Your task to perform on an android device: check out phone information Image 0: 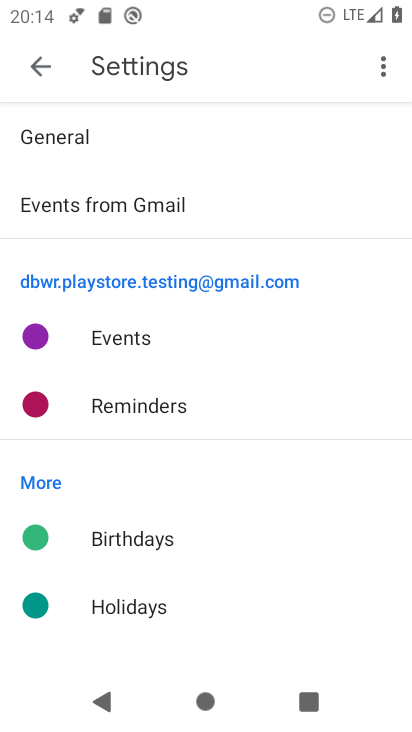
Step 0: press home button
Your task to perform on an android device: check out phone information Image 1: 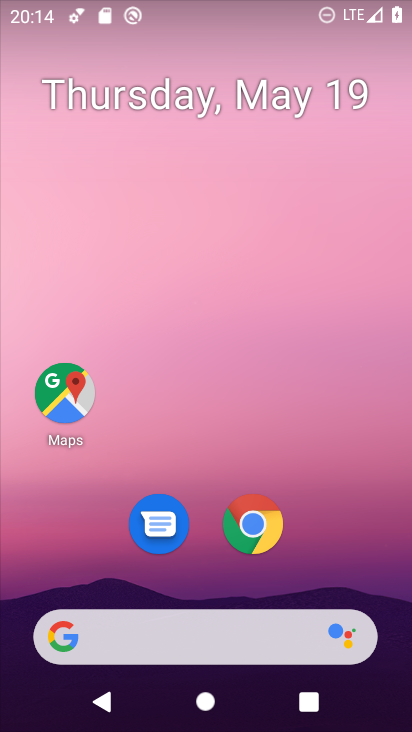
Step 1: drag from (213, 482) to (242, 12)
Your task to perform on an android device: check out phone information Image 2: 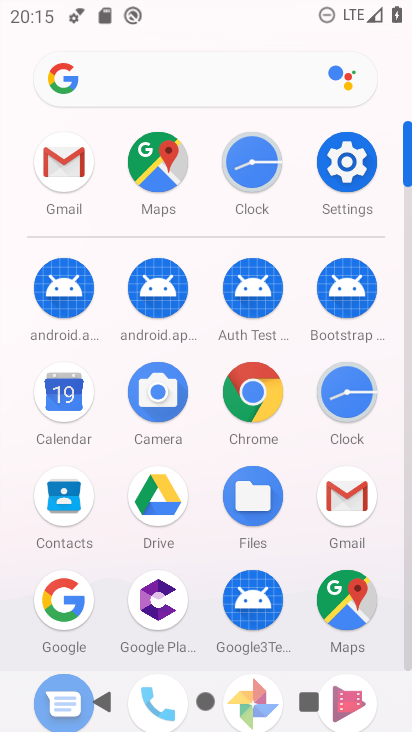
Step 2: drag from (198, 433) to (212, 197)
Your task to perform on an android device: check out phone information Image 3: 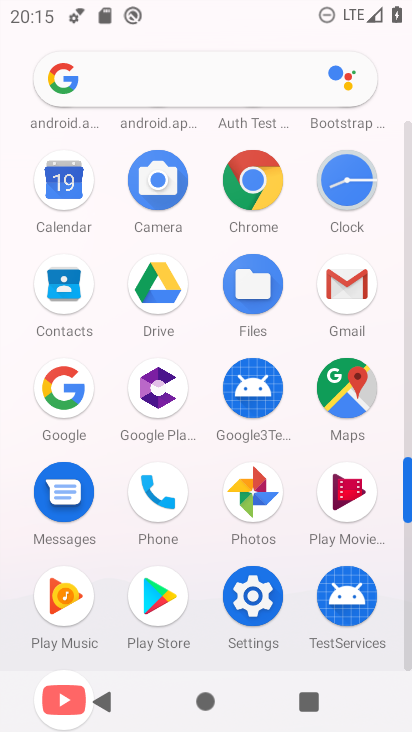
Step 3: click (164, 480)
Your task to perform on an android device: check out phone information Image 4: 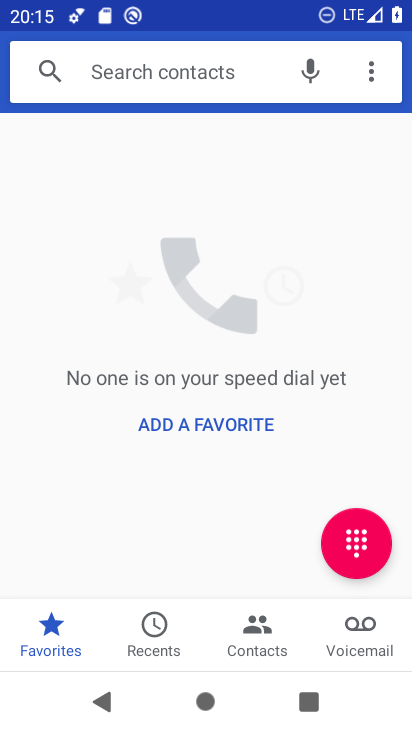
Step 4: click (373, 62)
Your task to perform on an android device: check out phone information Image 5: 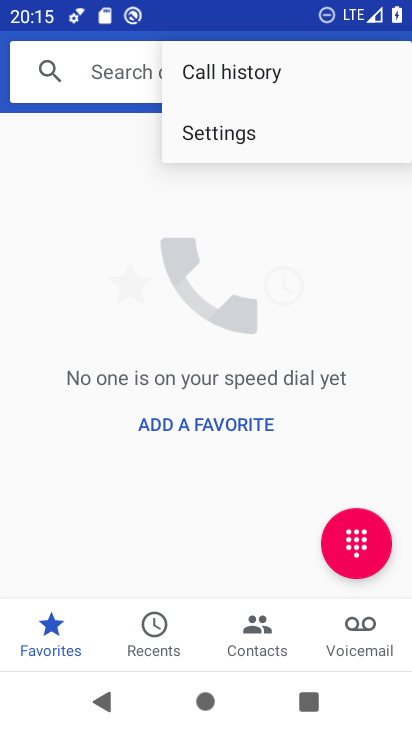
Step 5: click (281, 139)
Your task to perform on an android device: check out phone information Image 6: 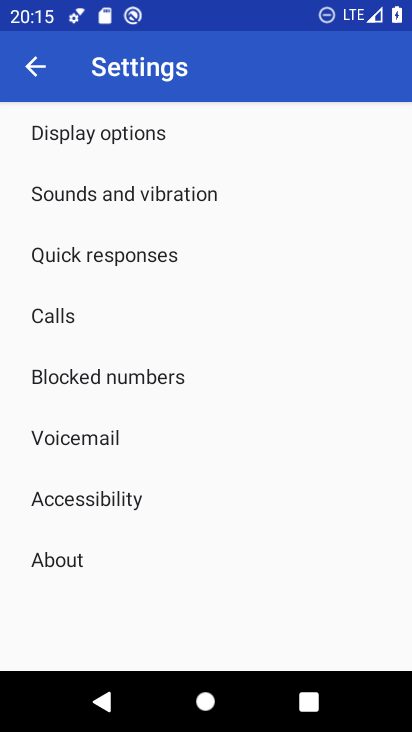
Step 6: click (52, 552)
Your task to perform on an android device: check out phone information Image 7: 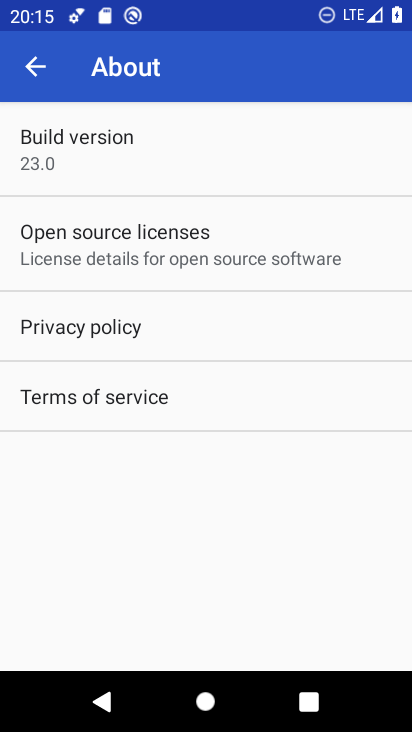
Step 7: task complete